Your task to perform on an android device: Open the calendar app, open the side menu, and click the "Day" option Image 0: 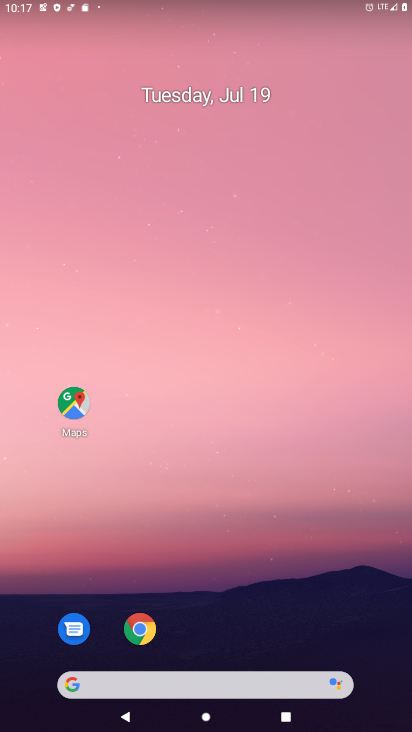
Step 0: drag from (219, 629) to (306, 28)
Your task to perform on an android device: Open the calendar app, open the side menu, and click the "Day" option Image 1: 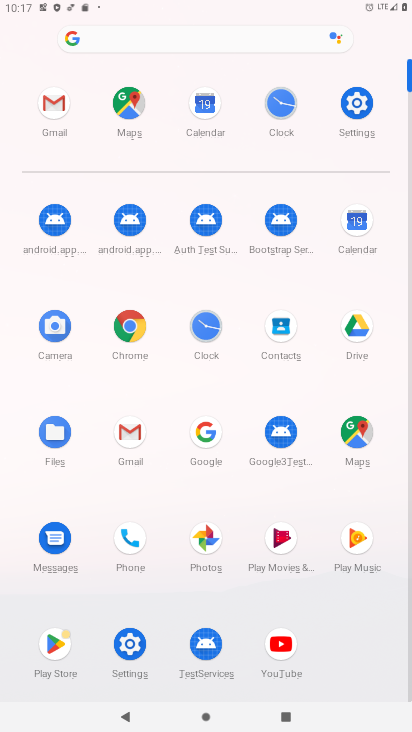
Step 1: click (355, 248)
Your task to perform on an android device: Open the calendar app, open the side menu, and click the "Day" option Image 2: 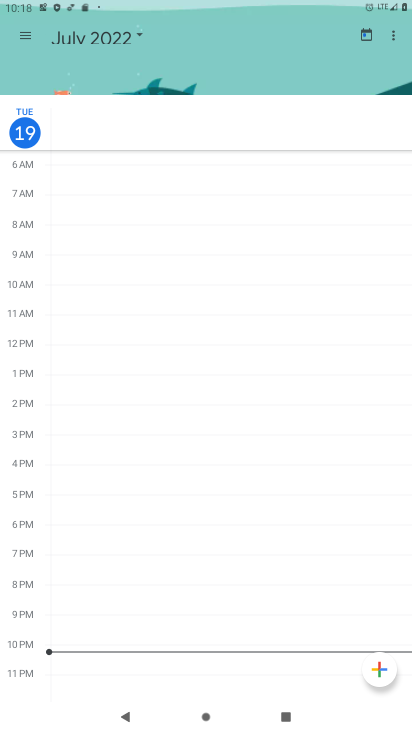
Step 2: click (24, 35)
Your task to perform on an android device: Open the calendar app, open the side menu, and click the "Day" option Image 3: 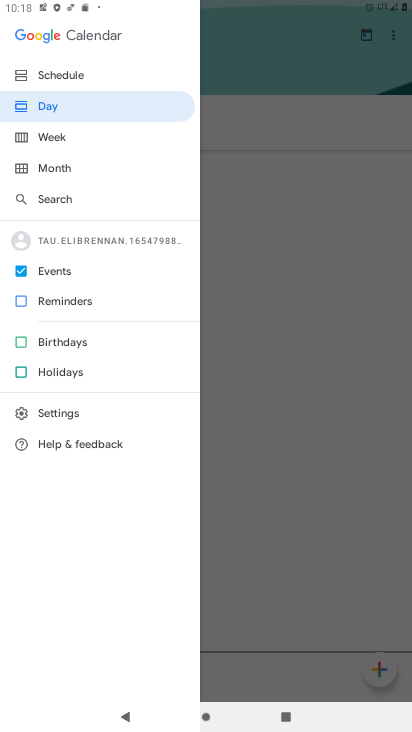
Step 3: click (73, 111)
Your task to perform on an android device: Open the calendar app, open the side menu, and click the "Day" option Image 4: 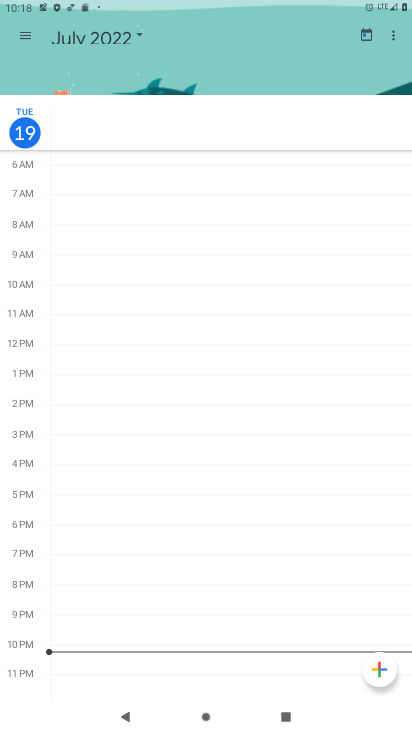
Step 4: task complete